Your task to perform on an android device: open chrome privacy settings Image 0: 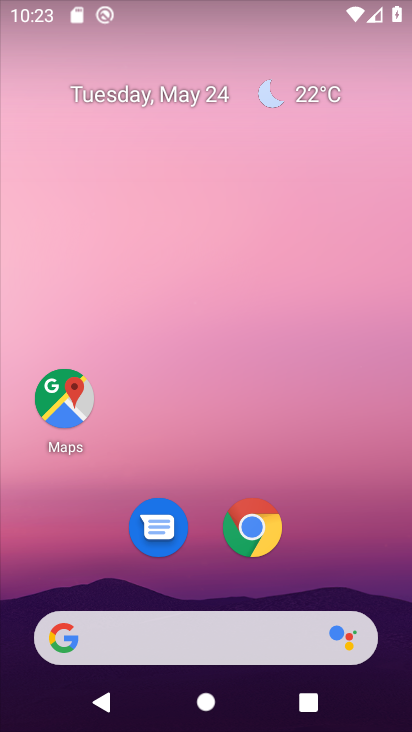
Step 0: press home button
Your task to perform on an android device: open chrome privacy settings Image 1: 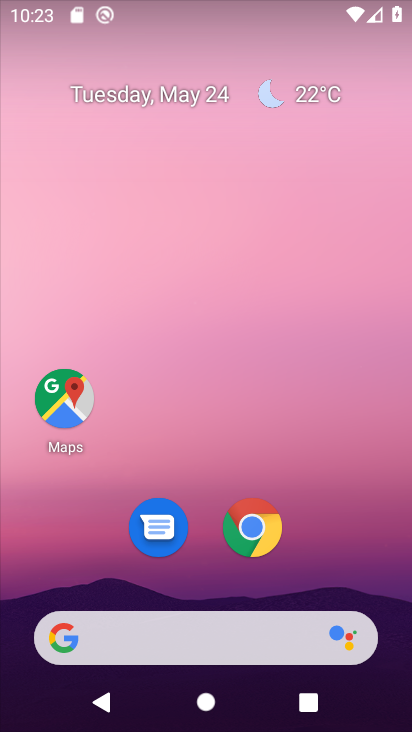
Step 1: click (246, 545)
Your task to perform on an android device: open chrome privacy settings Image 2: 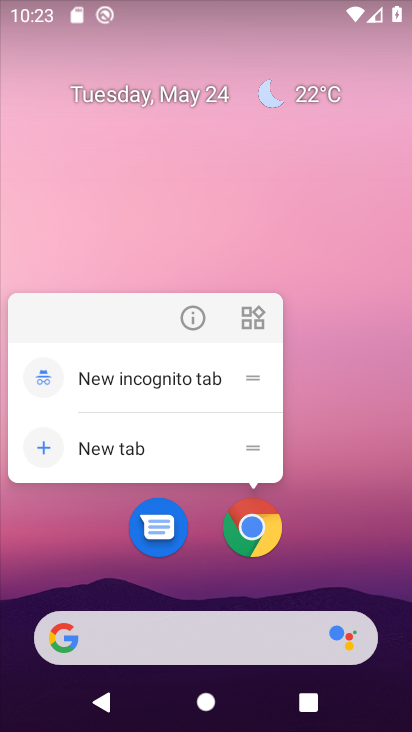
Step 2: click (252, 531)
Your task to perform on an android device: open chrome privacy settings Image 3: 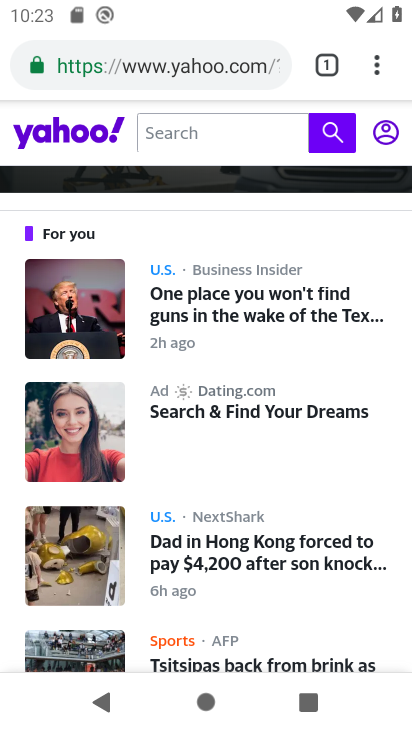
Step 3: drag from (376, 65) to (202, 585)
Your task to perform on an android device: open chrome privacy settings Image 4: 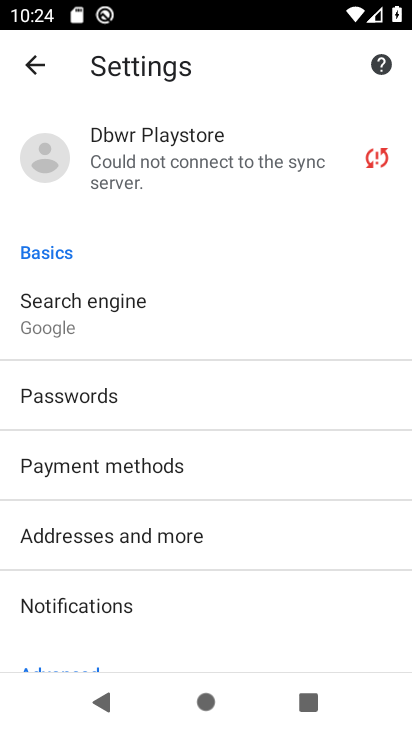
Step 4: drag from (175, 628) to (322, 187)
Your task to perform on an android device: open chrome privacy settings Image 5: 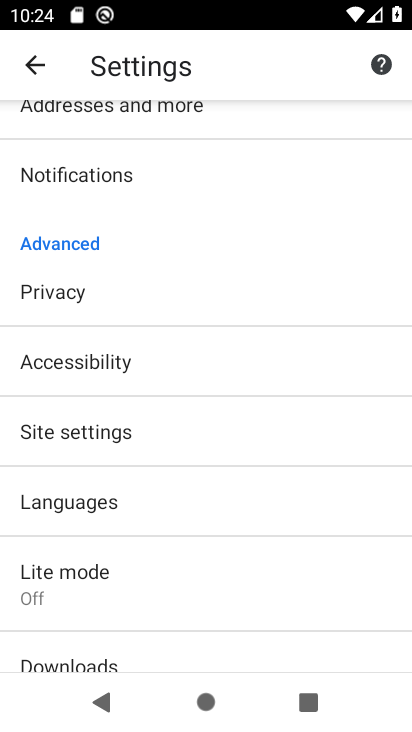
Step 5: click (57, 287)
Your task to perform on an android device: open chrome privacy settings Image 6: 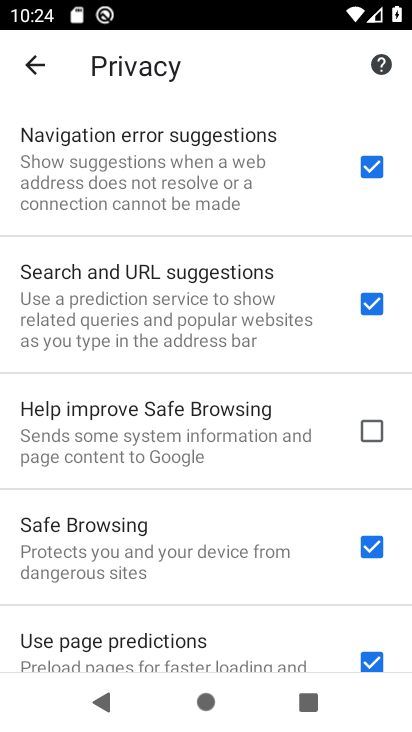
Step 6: task complete